Your task to perform on an android device: Show me the alarms in the clock app Image 0: 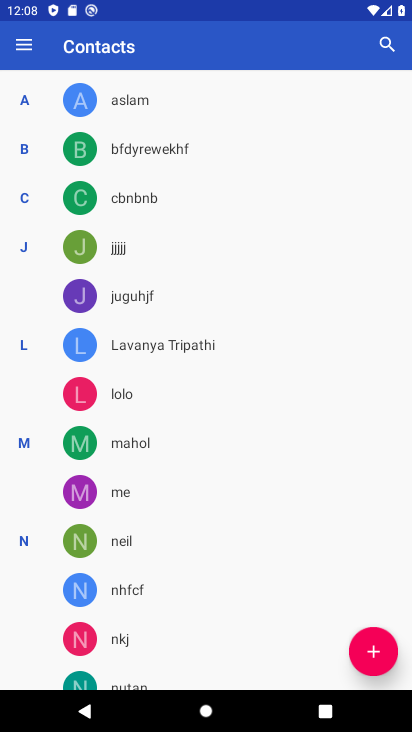
Step 0: press home button
Your task to perform on an android device: Show me the alarms in the clock app Image 1: 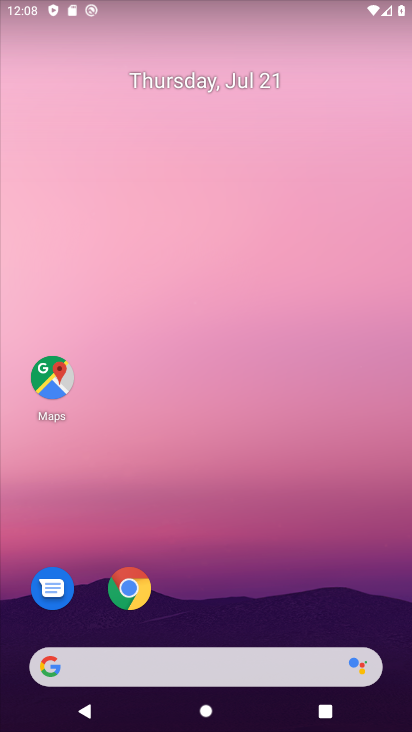
Step 1: drag from (223, 615) to (232, 130)
Your task to perform on an android device: Show me the alarms in the clock app Image 2: 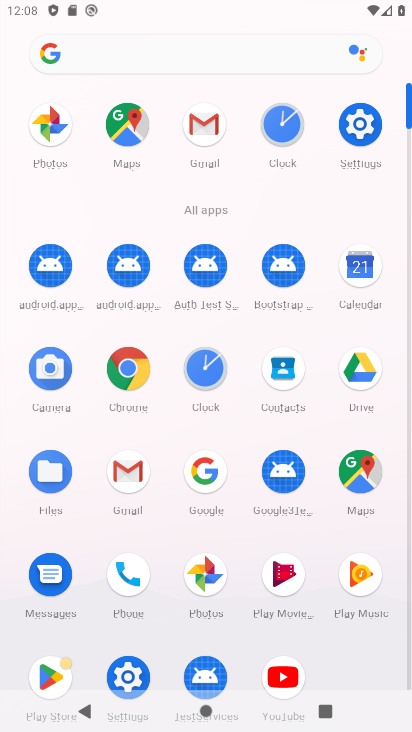
Step 2: click (130, 372)
Your task to perform on an android device: Show me the alarms in the clock app Image 3: 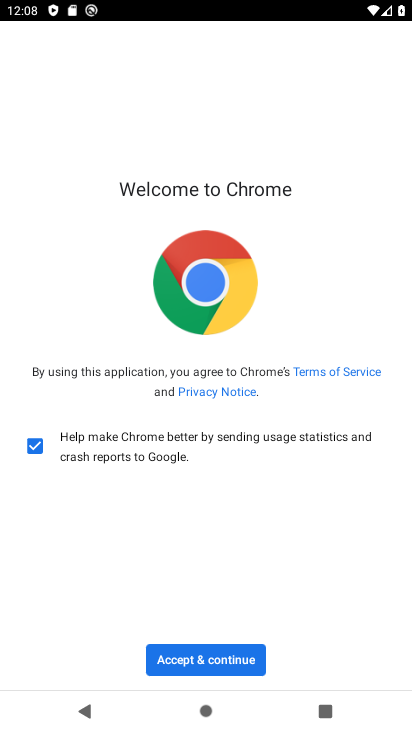
Step 3: press home button
Your task to perform on an android device: Show me the alarms in the clock app Image 4: 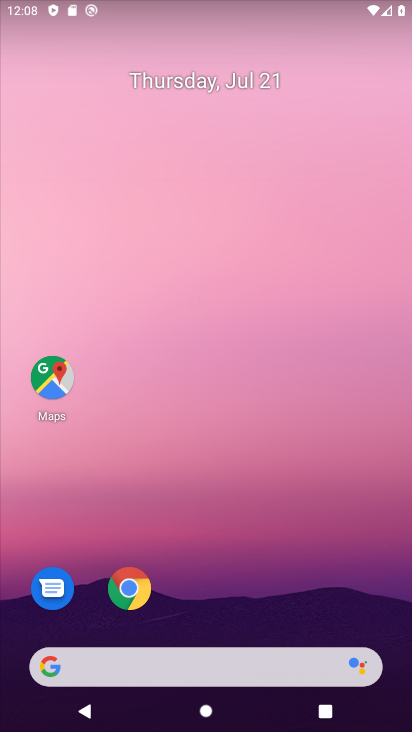
Step 4: drag from (220, 633) to (247, 203)
Your task to perform on an android device: Show me the alarms in the clock app Image 5: 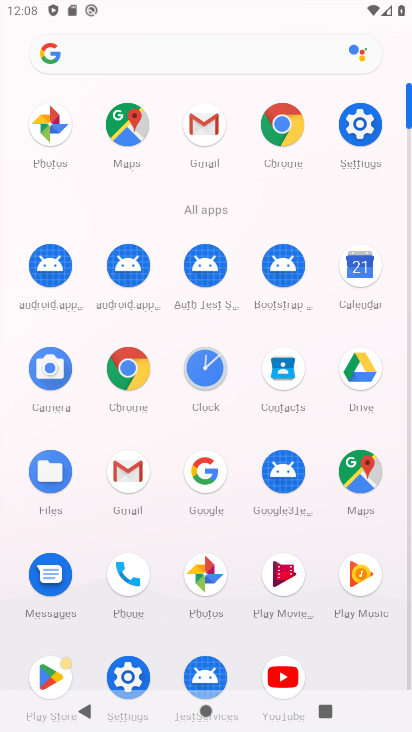
Step 5: click (214, 377)
Your task to perform on an android device: Show me the alarms in the clock app Image 6: 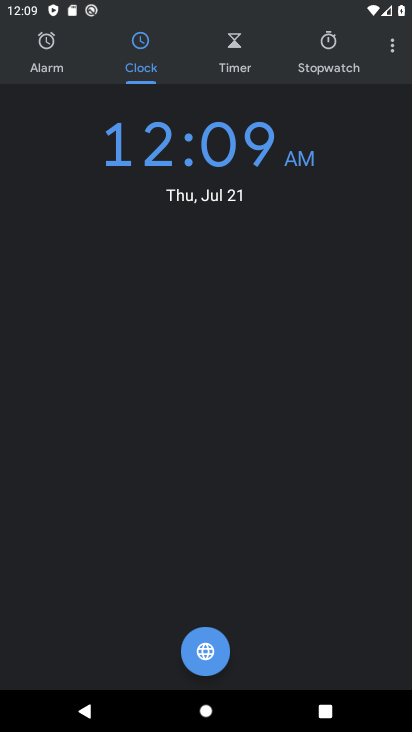
Step 6: click (50, 81)
Your task to perform on an android device: Show me the alarms in the clock app Image 7: 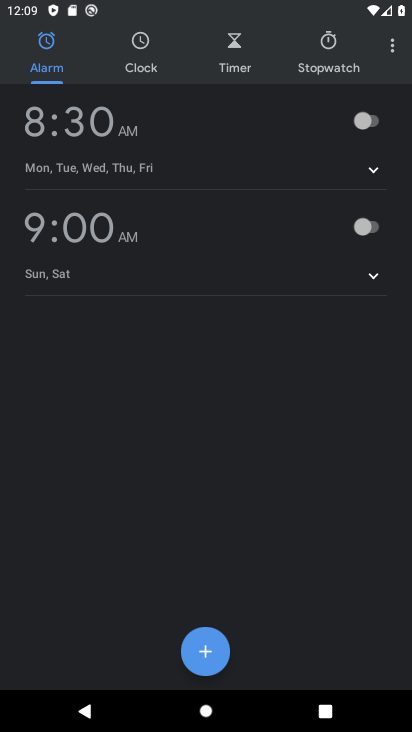
Step 7: task complete